Your task to perform on an android device: Open Wikipedia Image 0: 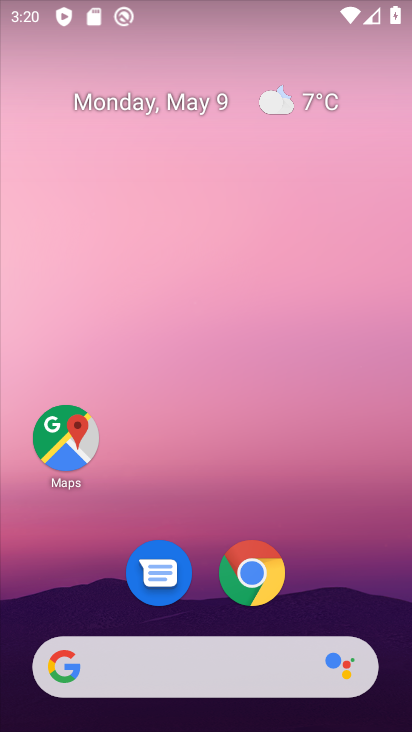
Step 0: click (254, 581)
Your task to perform on an android device: Open Wikipedia Image 1: 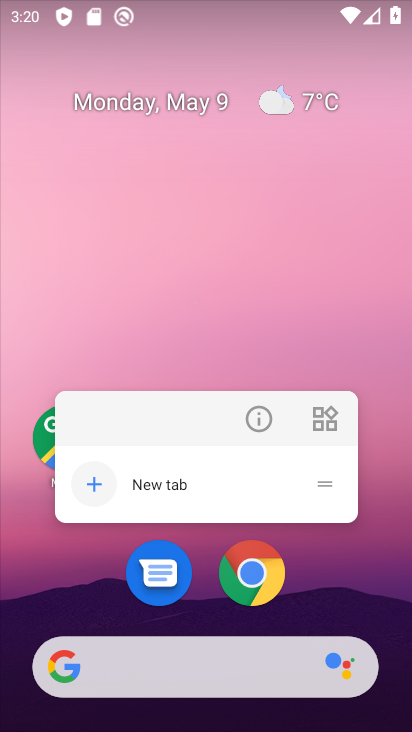
Step 1: click (254, 581)
Your task to perform on an android device: Open Wikipedia Image 2: 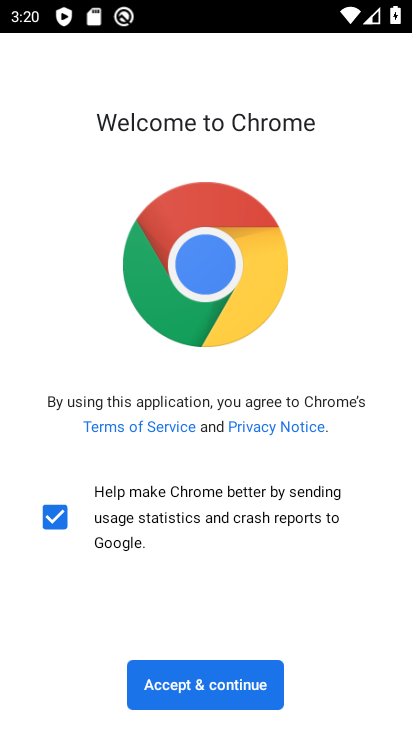
Step 2: click (186, 686)
Your task to perform on an android device: Open Wikipedia Image 3: 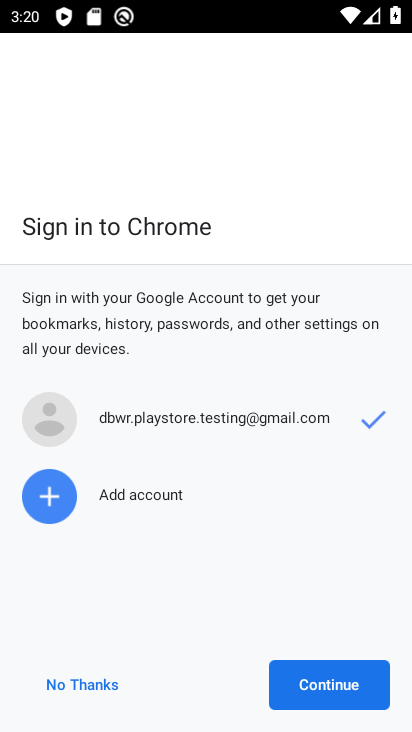
Step 3: click (74, 681)
Your task to perform on an android device: Open Wikipedia Image 4: 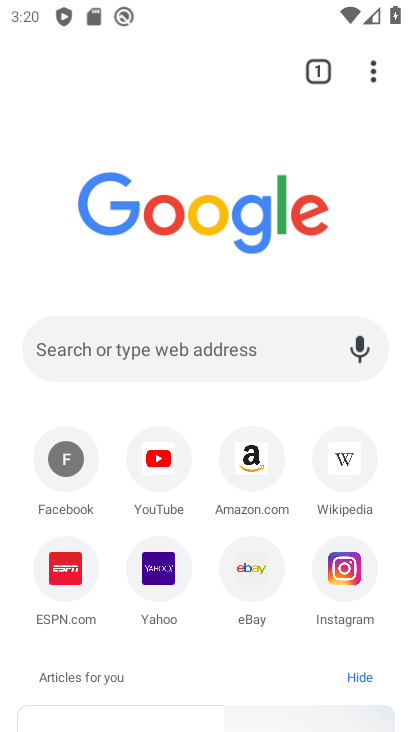
Step 4: click (350, 471)
Your task to perform on an android device: Open Wikipedia Image 5: 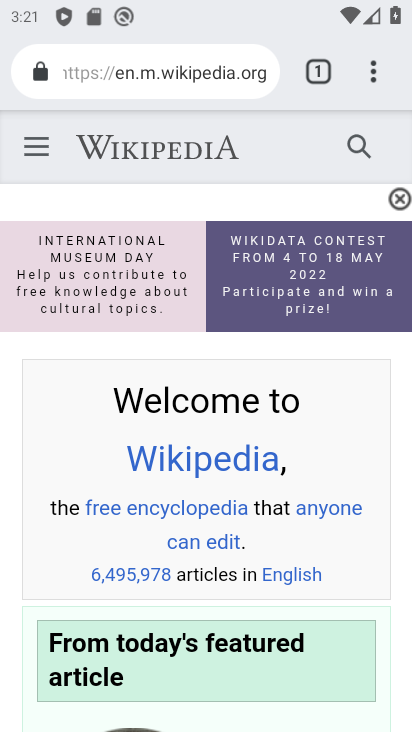
Step 5: task complete